Your task to perform on an android device: See recent photos Image 0: 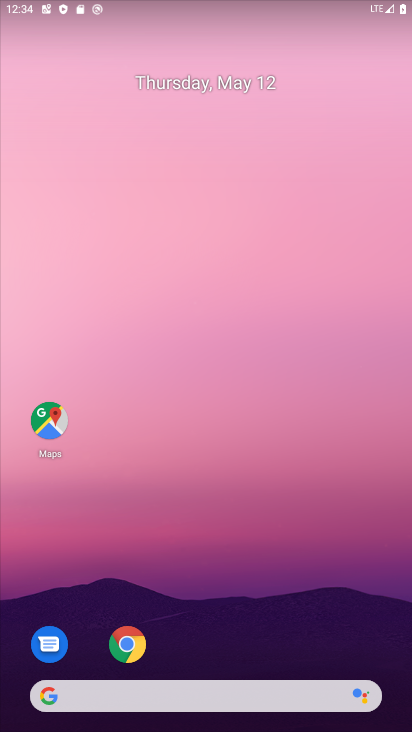
Step 0: drag from (230, 533) to (167, 83)
Your task to perform on an android device: See recent photos Image 1: 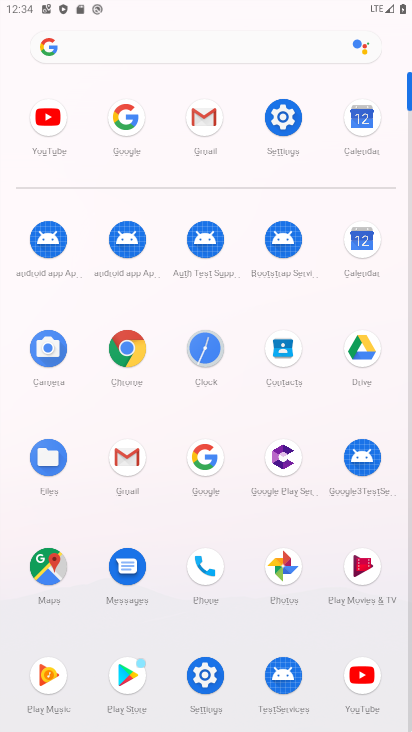
Step 1: click (290, 560)
Your task to perform on an android device: See recent photos Image 2: 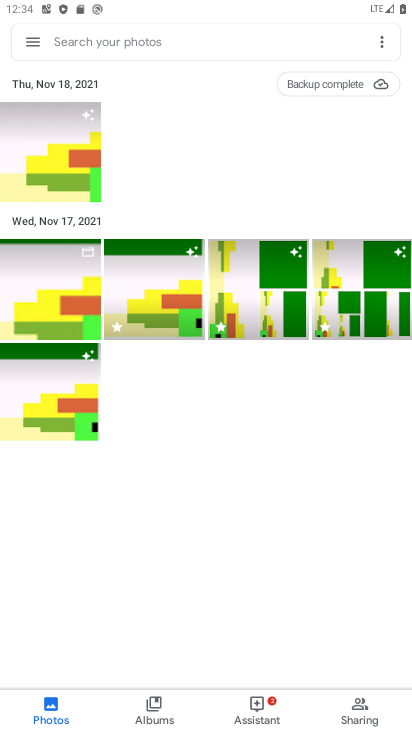
Step 2: task complete